Your task to perform on an android device: uninstall "NewsBreak: Local News & Alerts" Image 0: 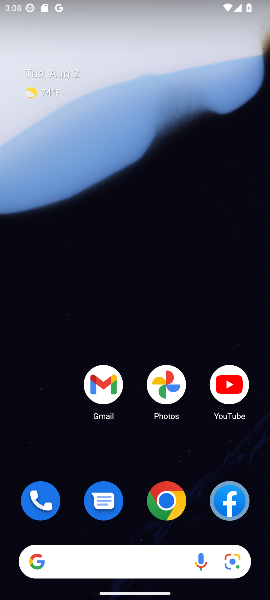
Step 0: drag from (144, 424) to (152, 4)
Your task to perform on an android device: uninstall "NewsBreak: Local News & Alerts" Image 1: 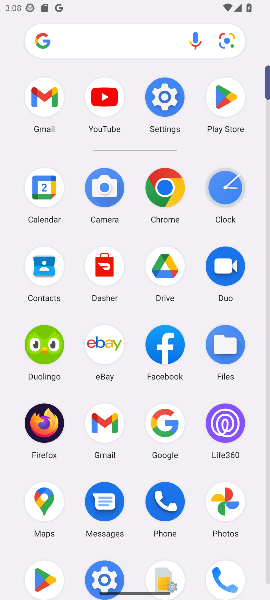
Step 1: click (217, 97)
Your task to perform on an android device: uninstall "NewsBreak: Local News & Alerts" Image 2: 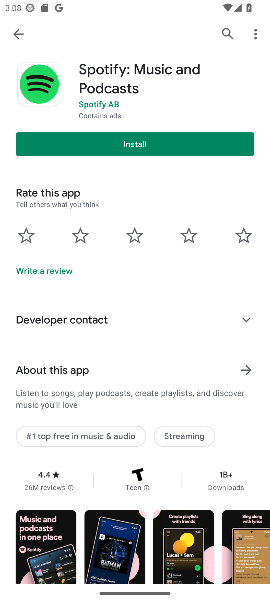
Step 2: click (228, 31)
Your task to perform on an android device: uninstall "NewsBreak: Local News & Alerts" Image 3: 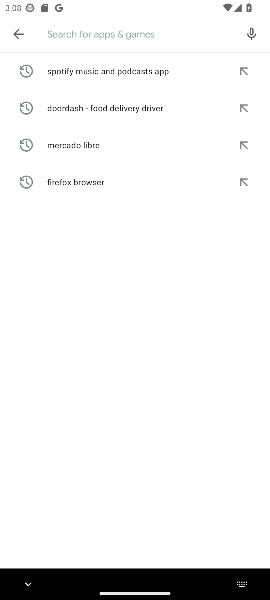
Step 3: type "NewsBreak: Local News & Alerts"
Your task to perform on an android device: uninstall "NewsBreak: Local News & Alerts" Image 4: 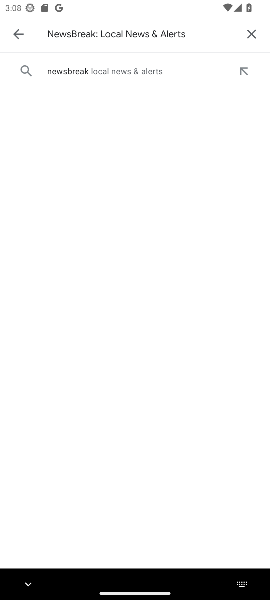
Step 4: click (75, 77)
Your task to perform on an android device: uninstall "NewsBreak: Local News & Alerts" Image 5: 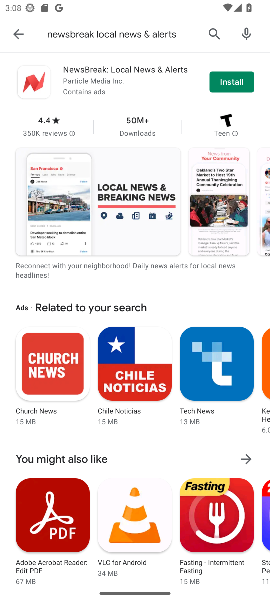
Step 5: task complete